Your task to perform on an android device: open app "Google Docs" (install if not already installed) Image 0: 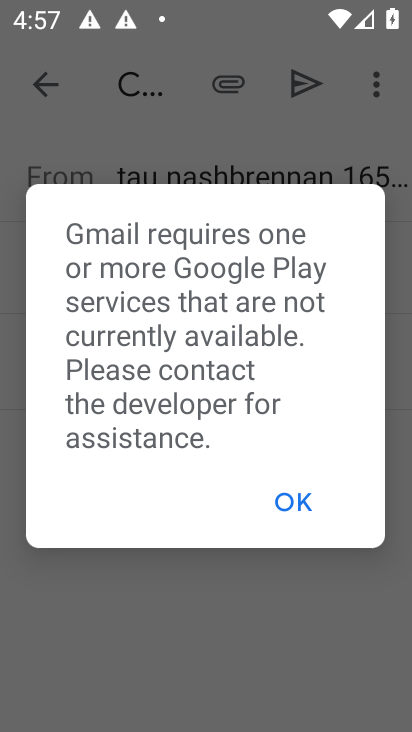
Step 0: click (287, 505)
Your task to perform on an android device: open app "Google Docs" (install if not already installed) Image 1: 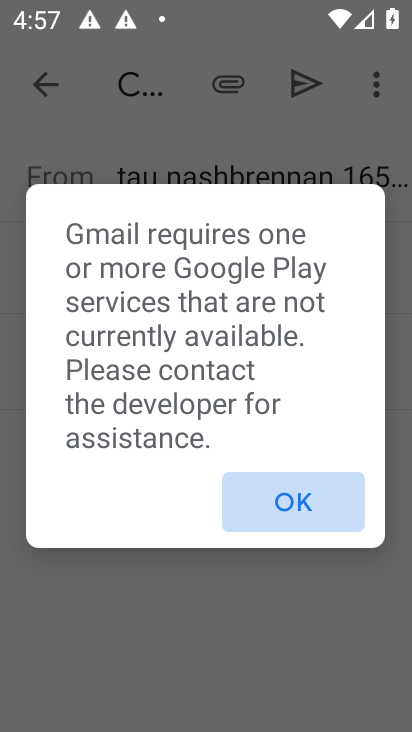
Step 1: click (289, 500)
Your task to perform on an android device: open app "Google Docs" (install if not already installed) Image 2: 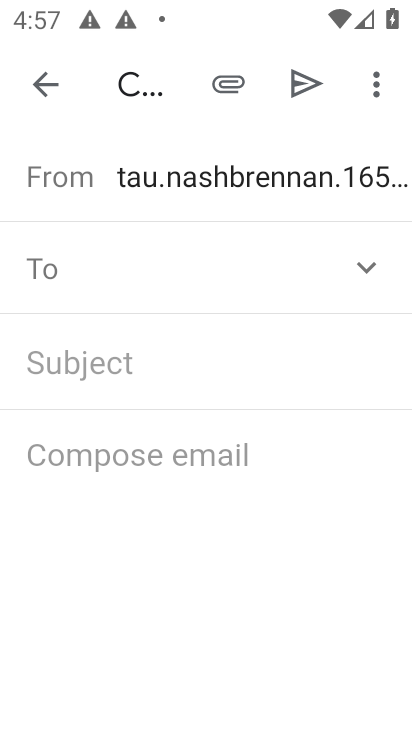
Step 2: press back button
Your task to perform on an android device: open app "Google Docs" (install if not already installed) Image 3: 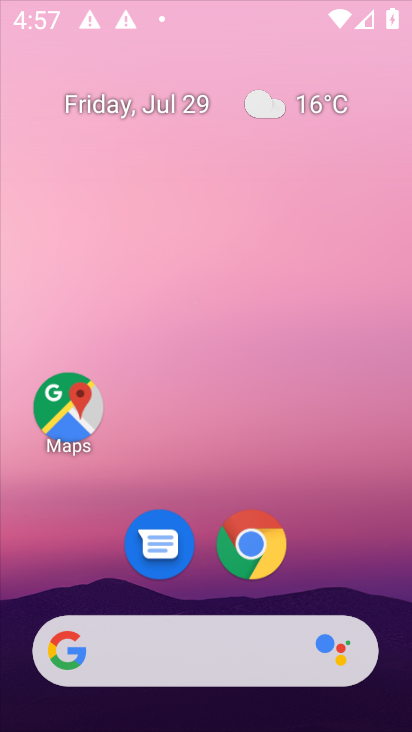
Step 3: click (40, 78)
Your task to perform on an android device: open app "Google Docs" (install if not already installed) Image 4: 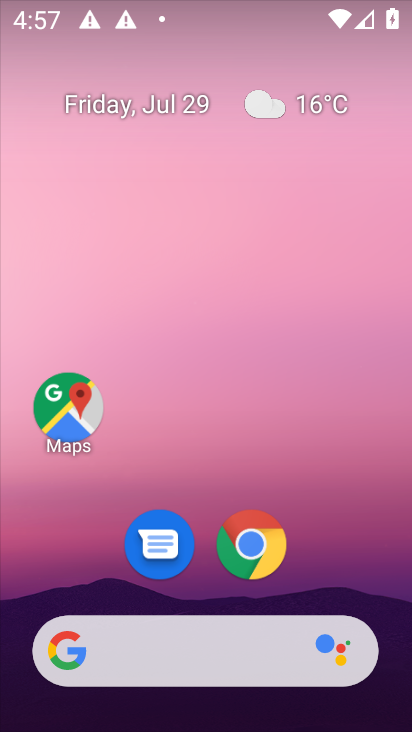
Step 4: drag from (232, 641) to (139, 69)
Your task to perform on an android device: open app "Google Docs" (install if not already installed) Image 5: 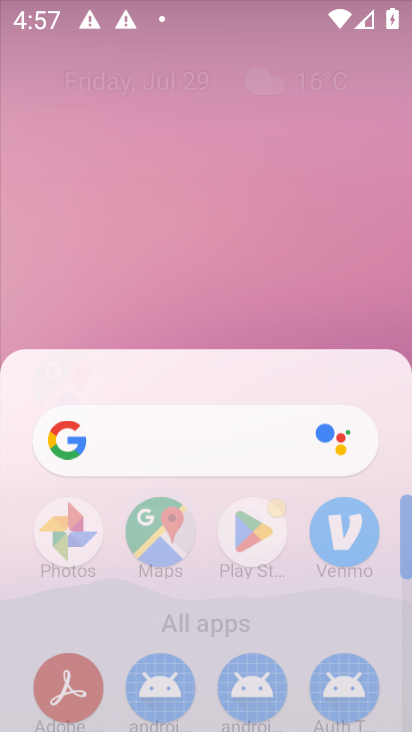
Step 5: drag from (179, 540) to (165, 122)
Your task to perform on an android device: open app "Google Docs" (install if not already installed) Image 6: 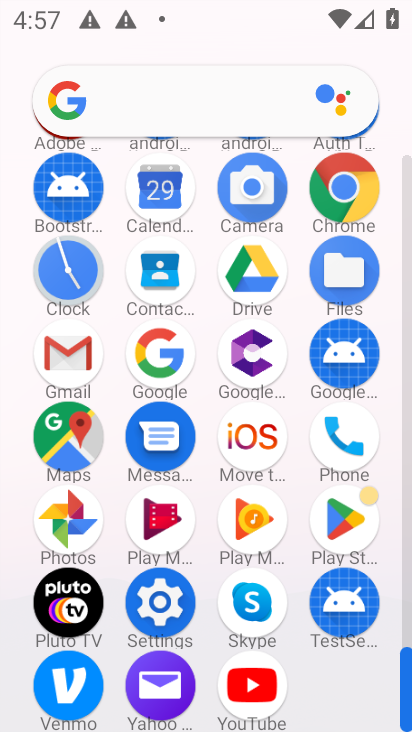
Step 6: click (346, 530)
Your task to perform on an android device: open app "Google Docs" (install if not already installed) Image 7: 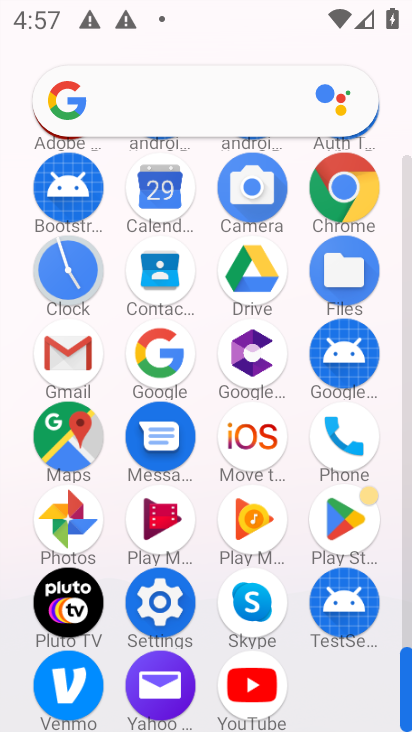
Step 7: click (345, 530)
Your task to perform on an android device: open app "Google Docs" (install if not already installed) Image 8: 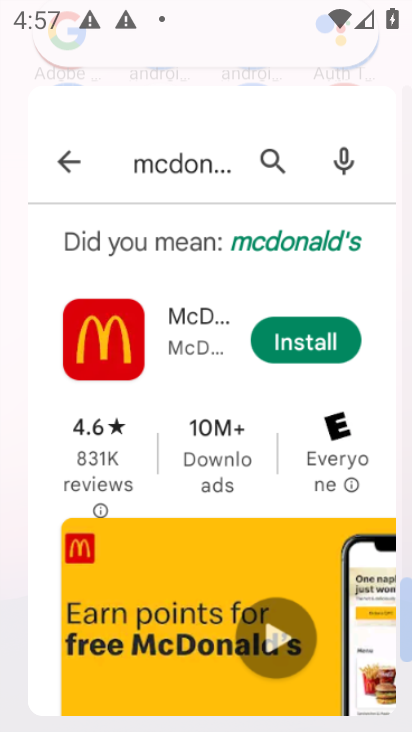
Step 8: click (345, 530)
Your task to perform on an android device: open app "Google Docs" (install if not already installed) Image 9: 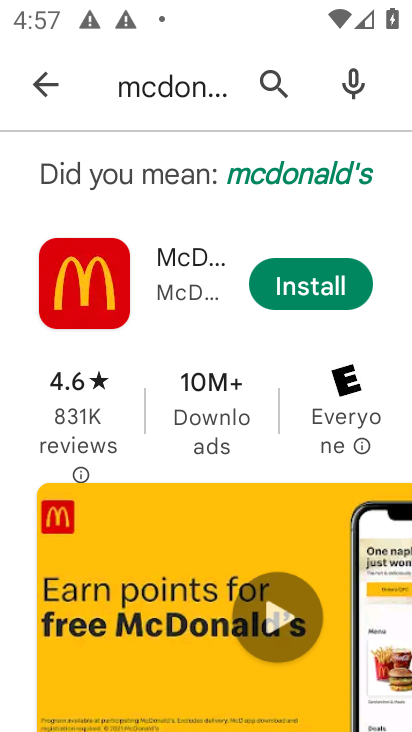
Step 9: click (36, 70)
Your task to perform on an android device: open app "Google Docs" (install if not already installed) Image 10: 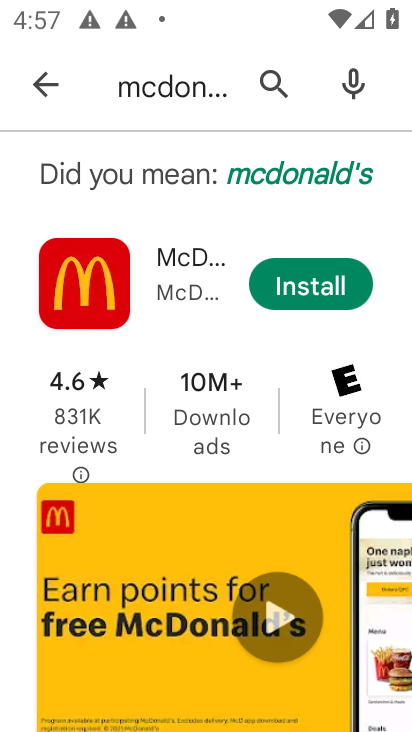
Step 10: click (42, 76)
Your task to perform on an android device: open app "Google Docs" (install if not already installed) Image 11: 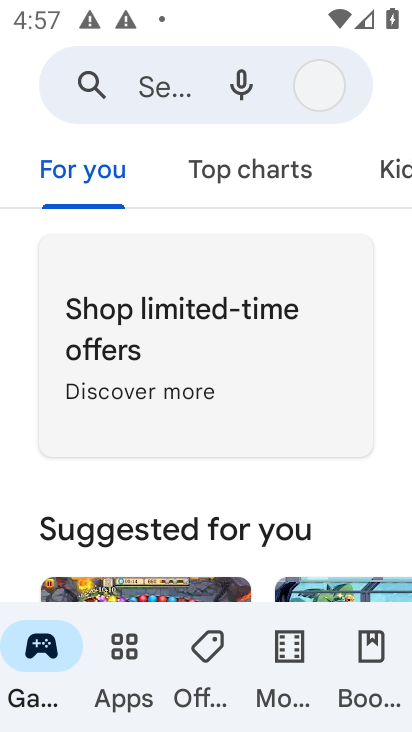
Step 11: click (42, 76)
Your task to perform on an android device: open app "Google Docs" (install if not already installed) Image 12: 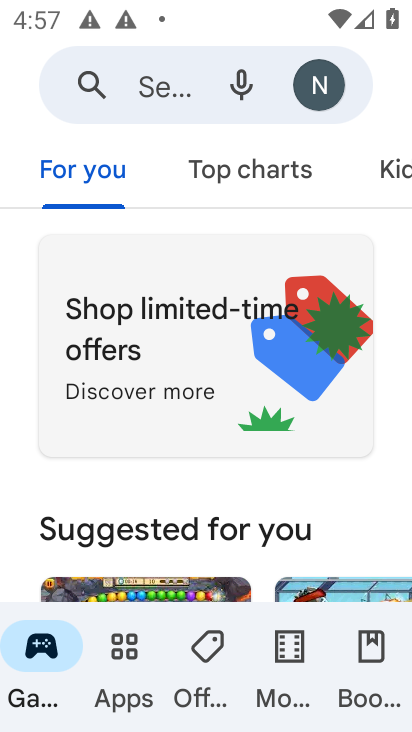
Step 12: click (193, 89)
Your task to perform on an android device: open app "Google Docs" (install if not already installed) Image 13: 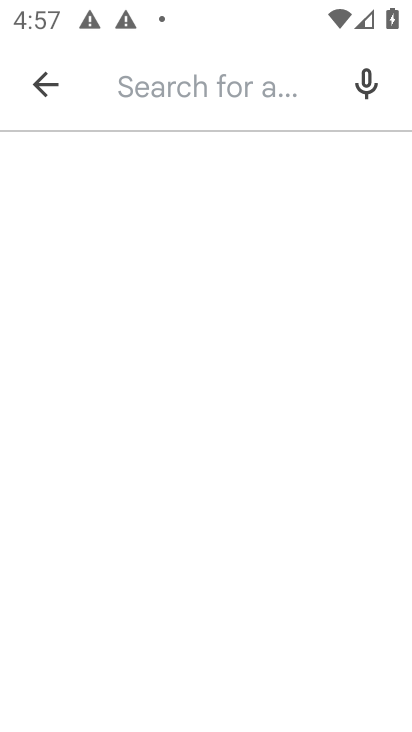
Step 13: click (170, 90)
Your task to perform on an android device: open app "Google Docs" (install if not already installed) Image 14: 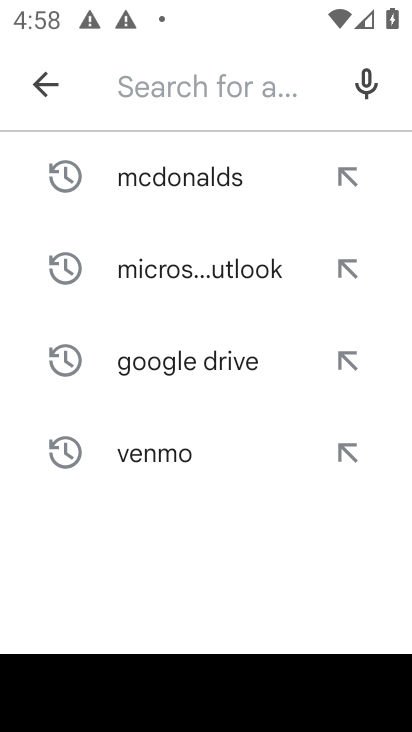
Step 14: type "Google Docs"
Your task to perform on an android device: open app "Google Docs" (install if not already installed) Image 15: 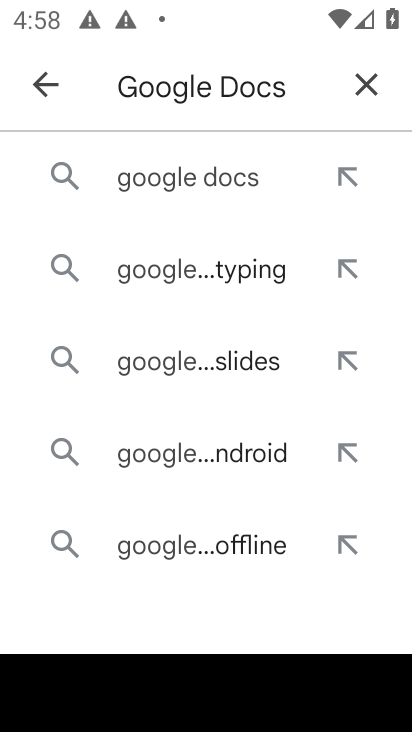
Step 15: click (210, 180)
Your task to perform on an android device: open app "Google Docs" (install if not already installed) Image 16: 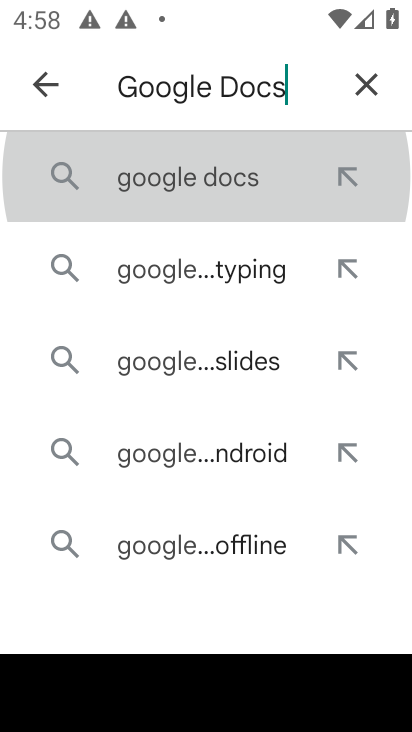
Step 16: click (211, 179)
Your task to perform on an android device: open app "Google Docs" (install if not already installed) Image 17: 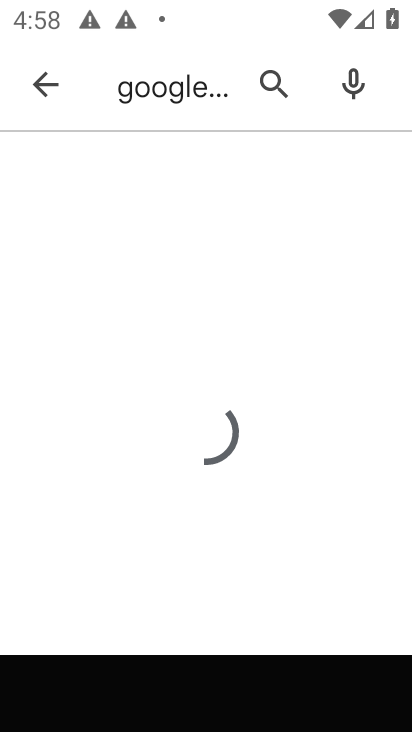
Step 17: click (211, 179)
Your task to perform on an android device: open app "Google Docs" (install if not already installed) Image 18: 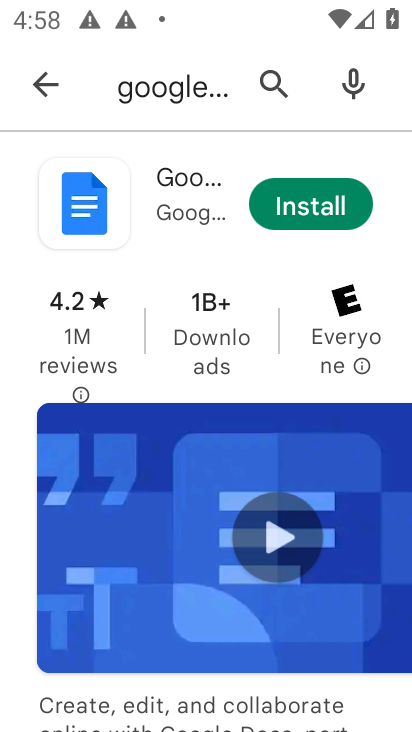
Step 18: click (306, 194)
Your task to perform on an android device: open app "Google Docs" (install if not already installed) Image 19: 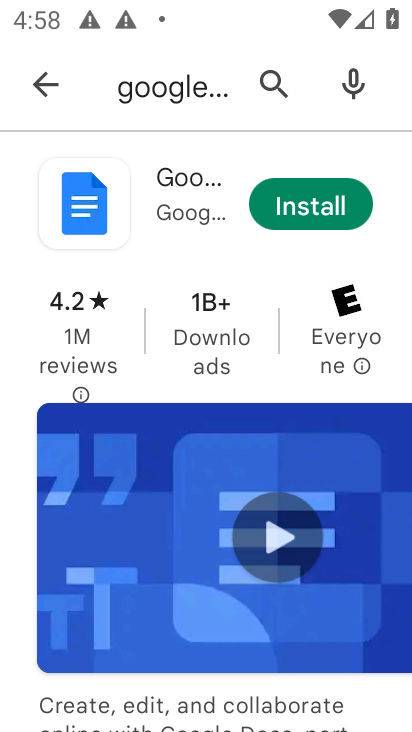
Step 19: click (307, 195)
Your task to perform on an android device: open app "Google Docs" (install if not already installed) Image 20: 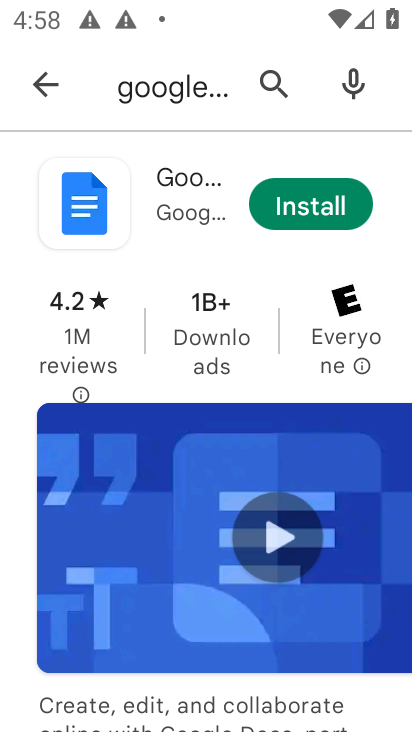
Step 20: click (312, 196)
Your task to perform on an android device: open app "Google Docs" (install if not already installed) Image 21: 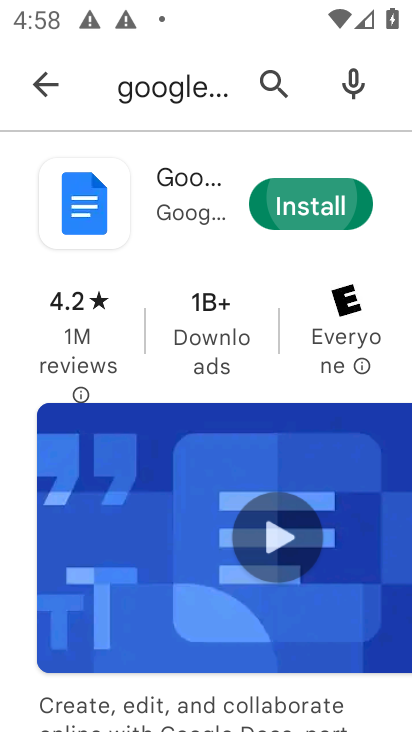
Step 21: click (311, 197)
Your task to perform on an android device: open app "Google Docs" (install if not already installed) Image 22: 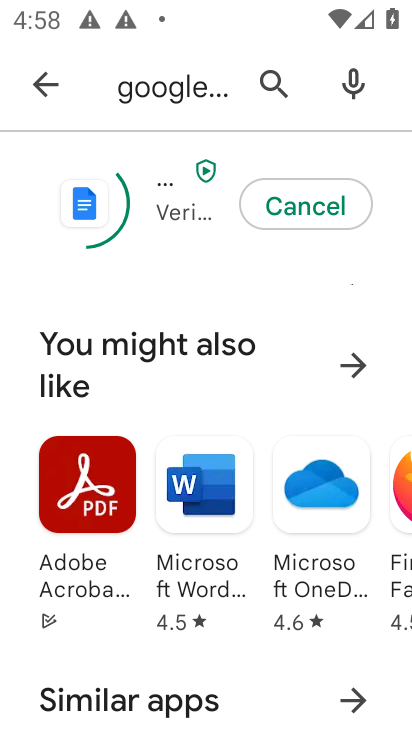
Step 22: click (312, 198)
Your task to perform on an android device: open app "Google Docs" (install if not already installed) Image 23: 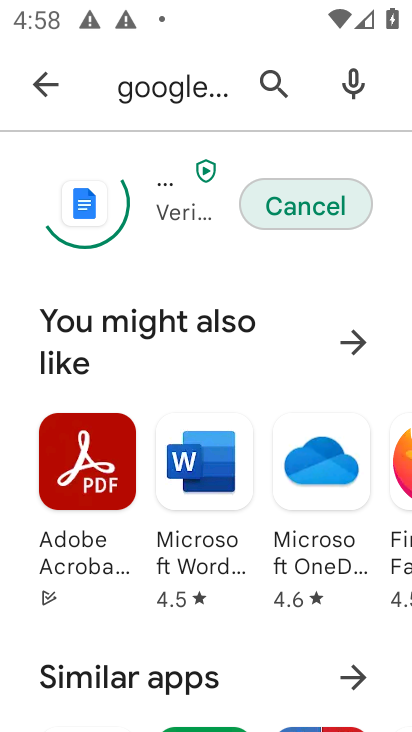
Step 23: click (312, 198)
Your task to perform on an android device: open app "Google Docs" (install if not already installed) Image 24: 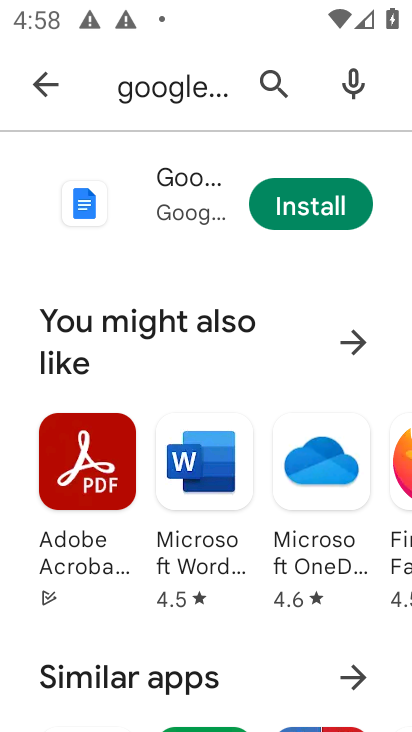
Step 24: click (312, 198)
Your task to perform on an android device: open app "Google Docs" (install if not already installed) Image 25: 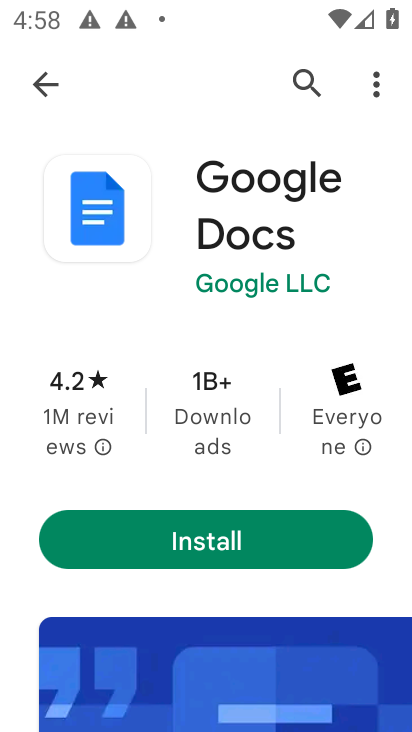
Step 25: click (195, 531)
Your task to perform on an android device: open app "Google Docs" (install if not already installed) Image 26: 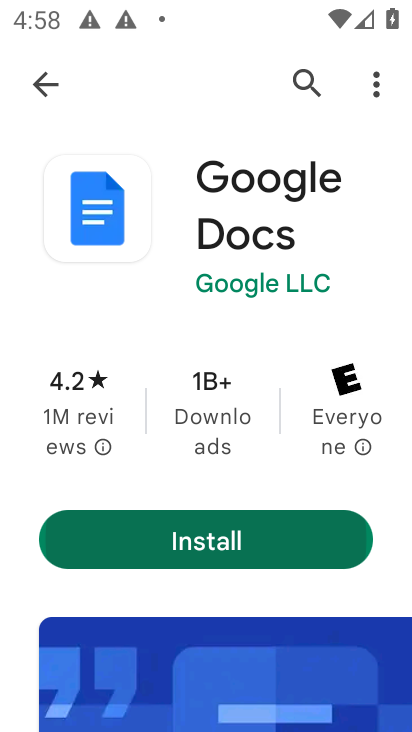
Step 26: click (203, 523)
Your task to perform on an android device: open app "Google Docs" (install if not already installed) Image 27: 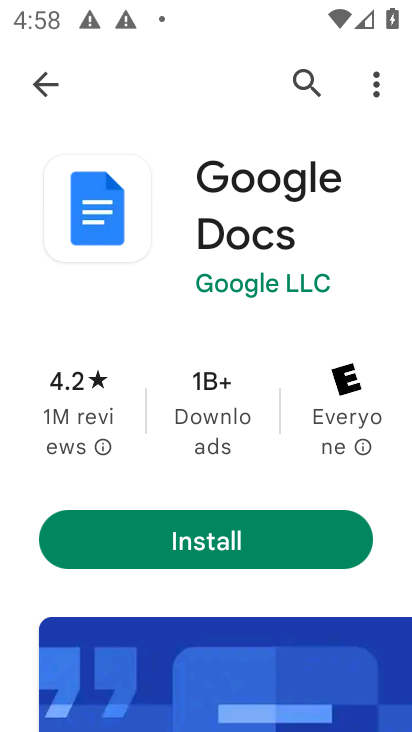
Step 27: click (211, 518)
Your task to perform on an android device: open app "Google Docs" (install if not already installed) Image 28: 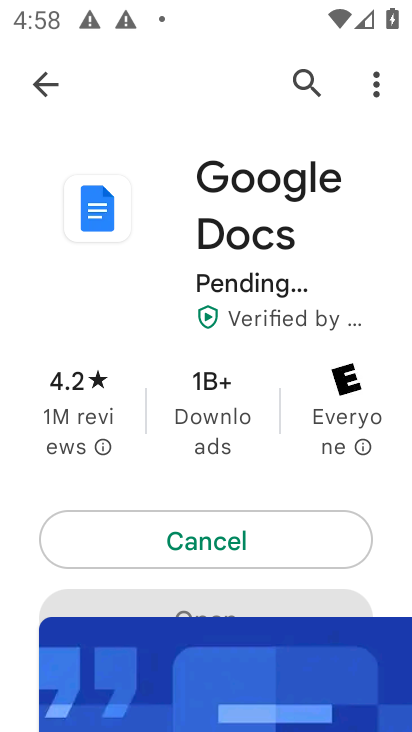
Step 28: click (211, 518)
Your task to perform on an android device: open app "Google Docs" (install if not already installed) Image 29: 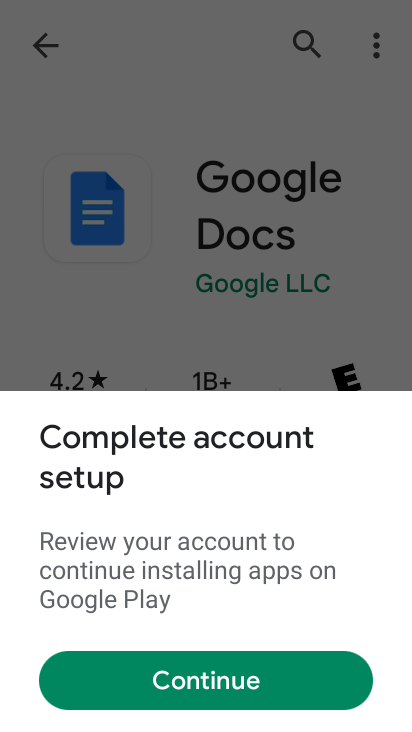
Step 29: click (287, 671)
Your task to perform on an android device: open app "Google Docs" (install if not already installed) Image 30: 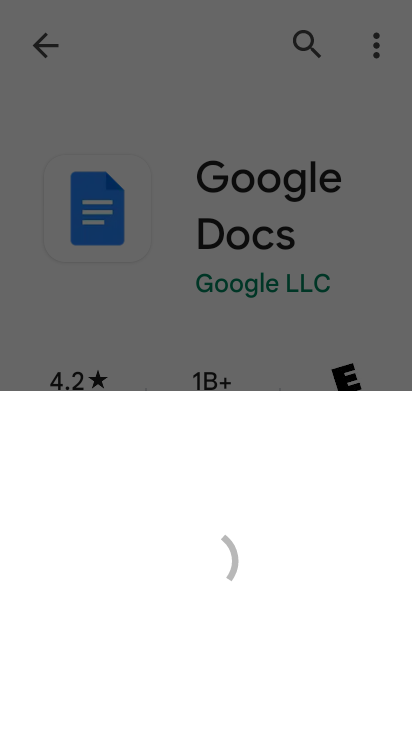
Step 30: click (287, 671)
Your task to perform on an android device: open app "Google Docs" (install if not already installed) Image 31: 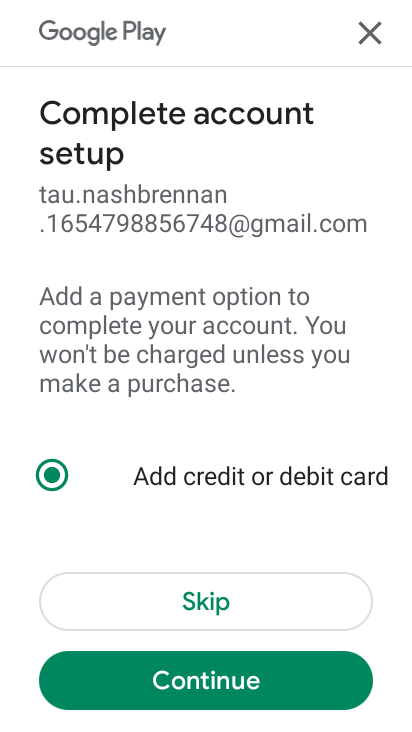
Step 31: click (228, 592)
Your task to perform on an android device: open app "Google Docs" (install if not already installed) Image 32: 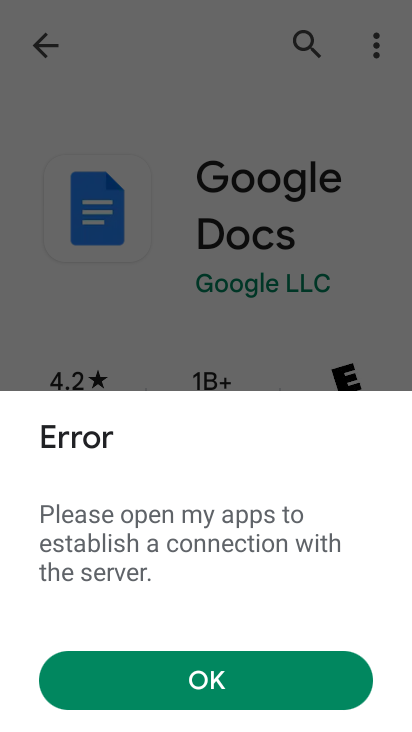
Step 32: click (234, 679)
Your task to perform on an android device: open app "Google Docs" (install if not already installed) Image 33: 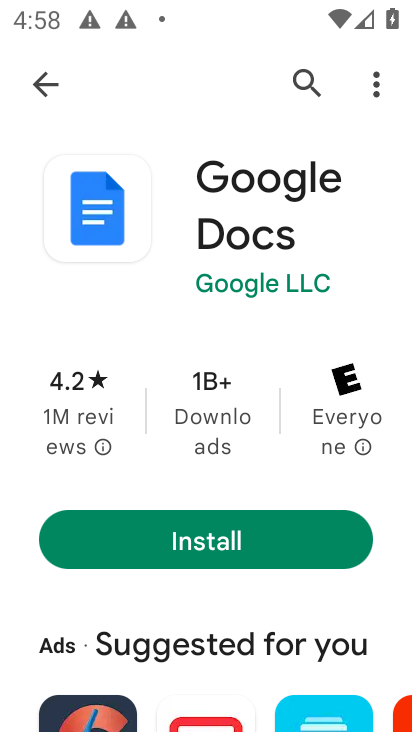
Step 33: task complete